Your task to perform on an android device: turn vacation reply on in the gmail app Image 0: 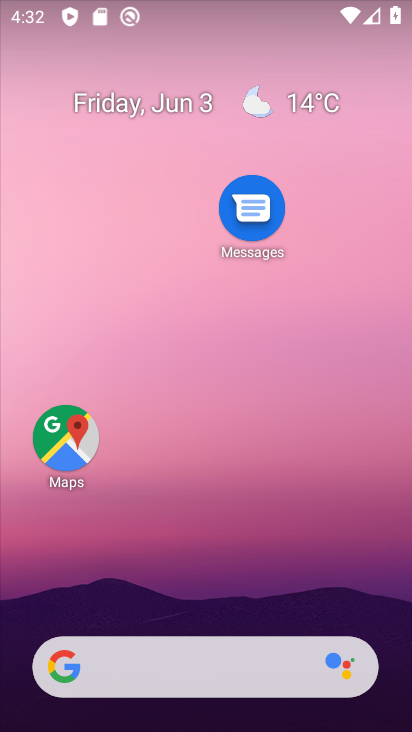
Step 0: press back button
Your task to perform on an android device: turn vacation reply on in the gmail app Image 1: 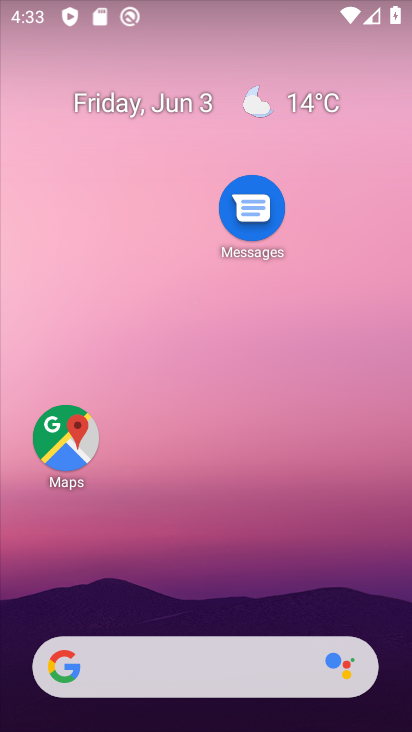
Step 1: drag from (237, 593) to (202, 258)
Your task to perform on an android device: turn vacation reply on in the gmail app Image 2: 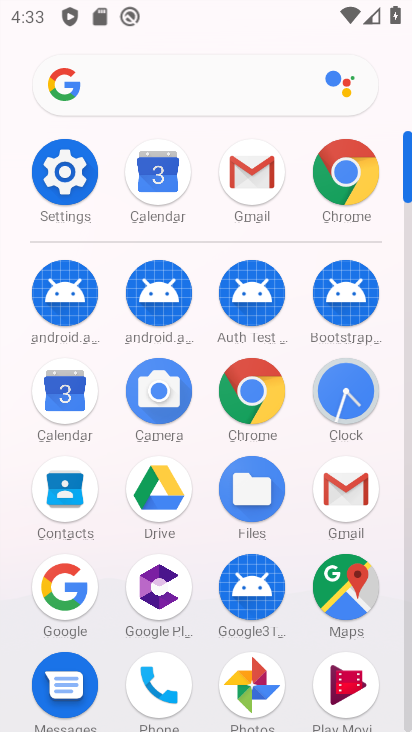
Step 2: click (253, 183)
Your task to perform on an android device: turn vacation reply on in the gmail app Image 3: 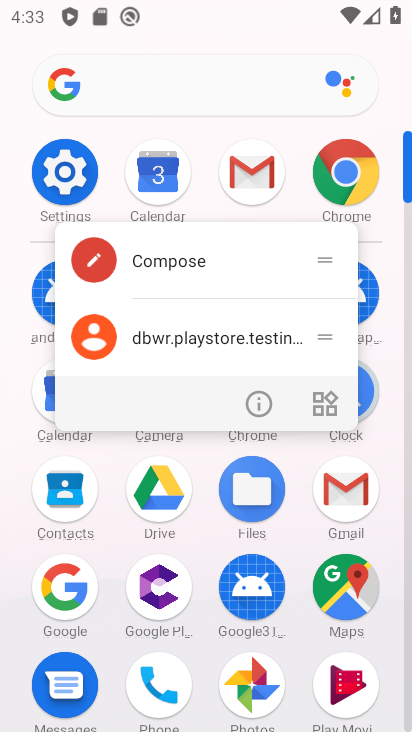
Step 3: click (245, 183)
Your task to perform on an android device: turn vacation reply on in the gmail app Image 4: 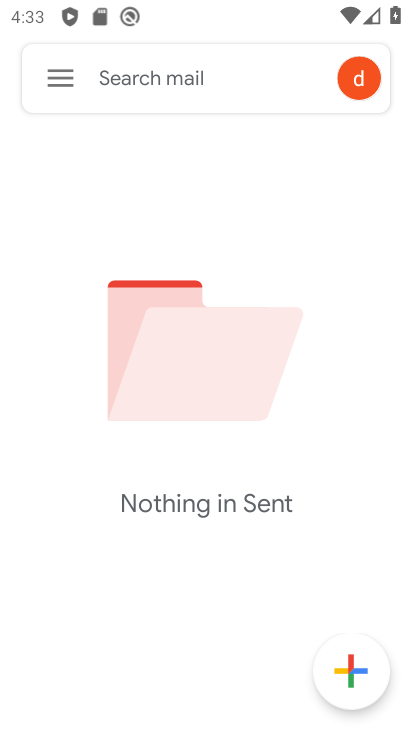
Step 4: click (72, 75)
Your task to perform on an android device: turn vacation reply on in the gmail app Image 5: 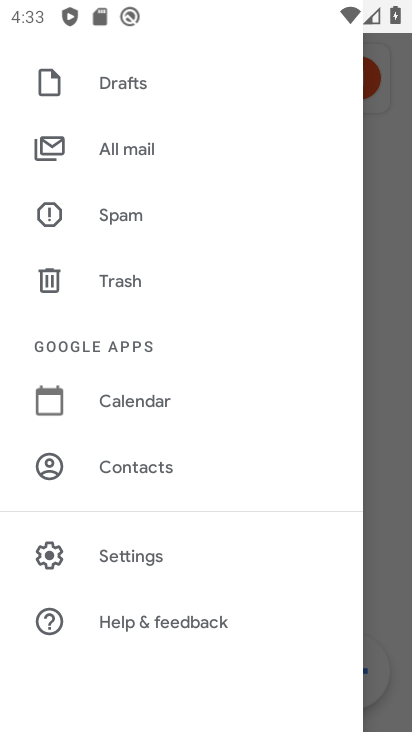
Step 5: click (133, 558)
Your task to perform on an android device: turn vacation reply on in the gmail app Image 6: 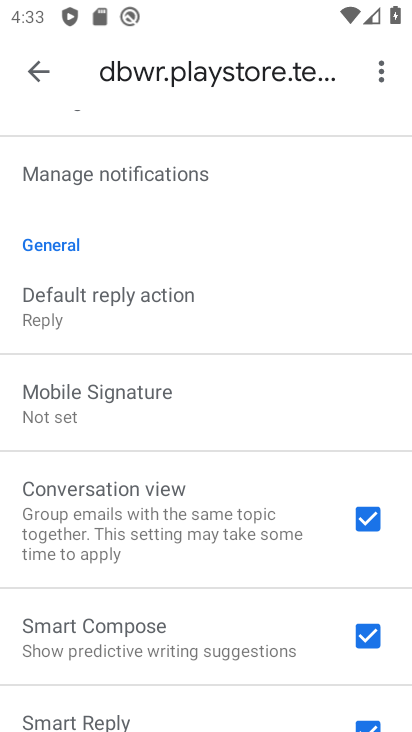
Step 6: task complete